Your task to perform on an android device: stop showing notifications on the lock screen Image 0: 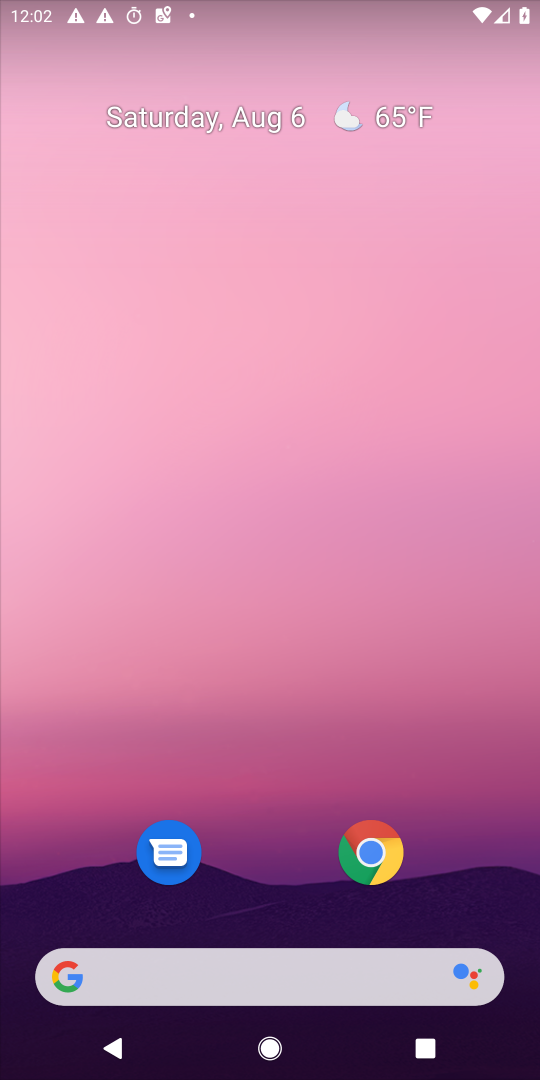
Step 0: drag from (380, 1014) to (256, 318)
Your task to perform on an android device: stop showing notifications on the lock screen Image 1: 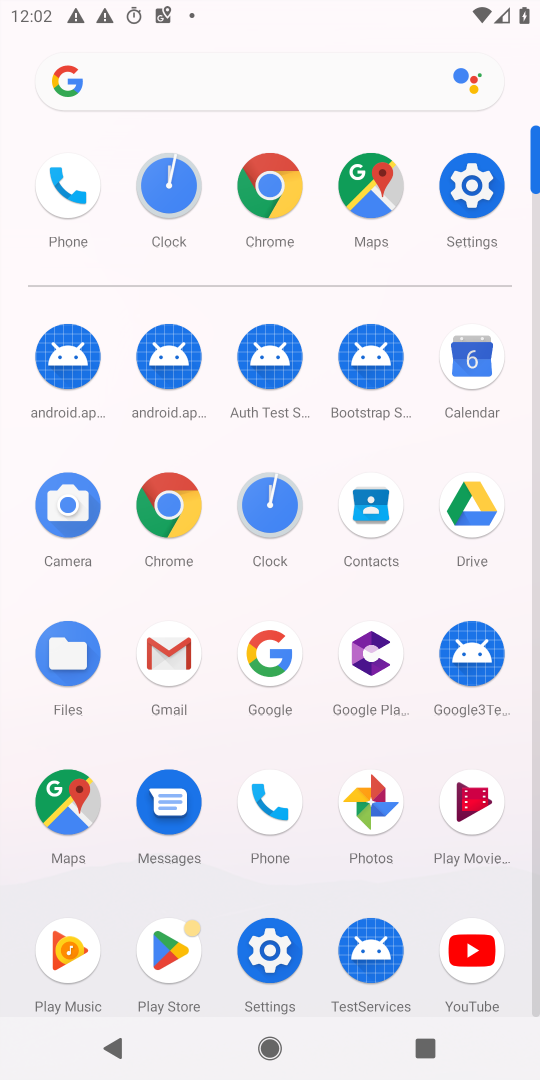
Step 1: click (473, 177)
Your task to perform on an android device: stop showing notifications on the lock screen Image 2: 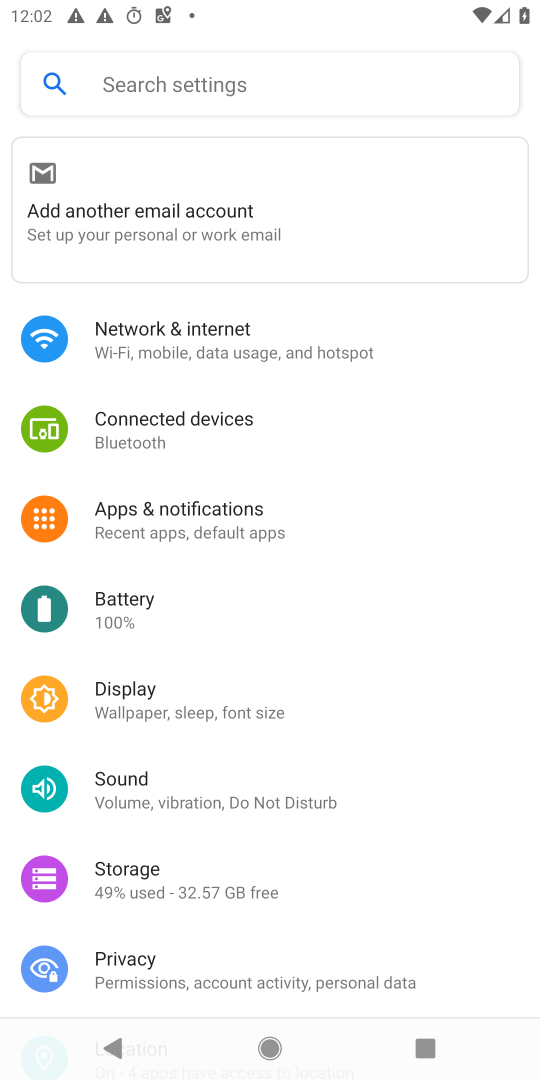
Step 2: click (175, 100)
Your task to perform on an android device: stop showing notifications on the lock screen Image 3: 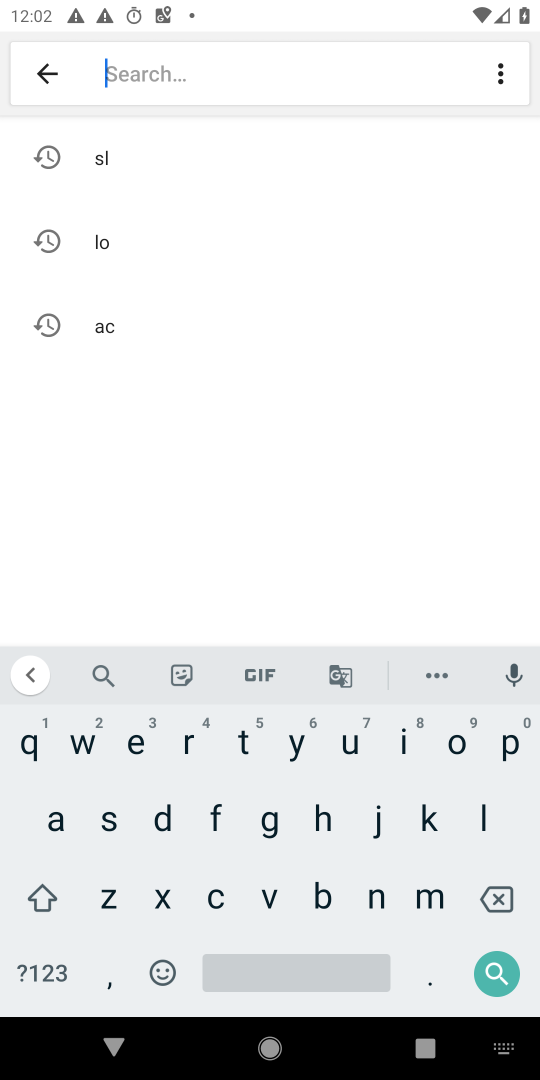
Step 3: click (366, 903)
Your task to perform on an android device: stop showing notifications on the lock screen Image 4: 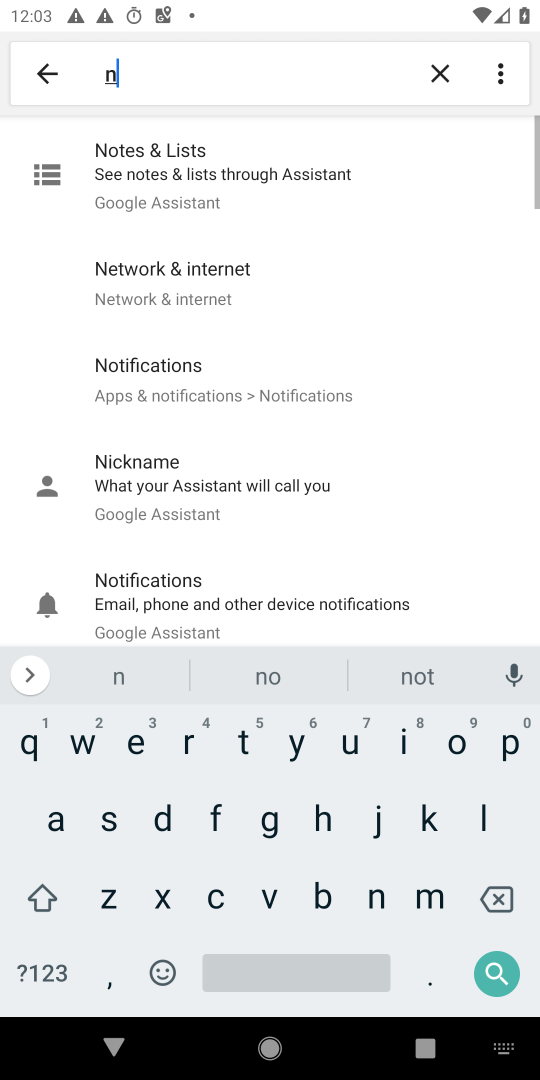
Step 4: click (447, 746)
Your task to perform on an android device: stop showing notifications on the lock screen Image 5: 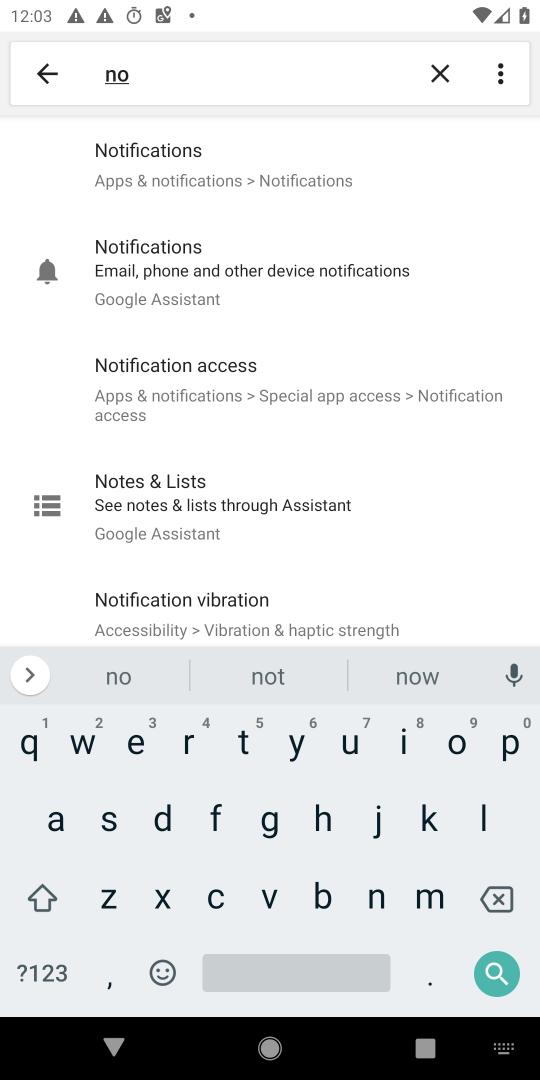
Step 5: click (165, 145)
Your task to perform on an android device: stop showing notifications on the lock screen Image 6: 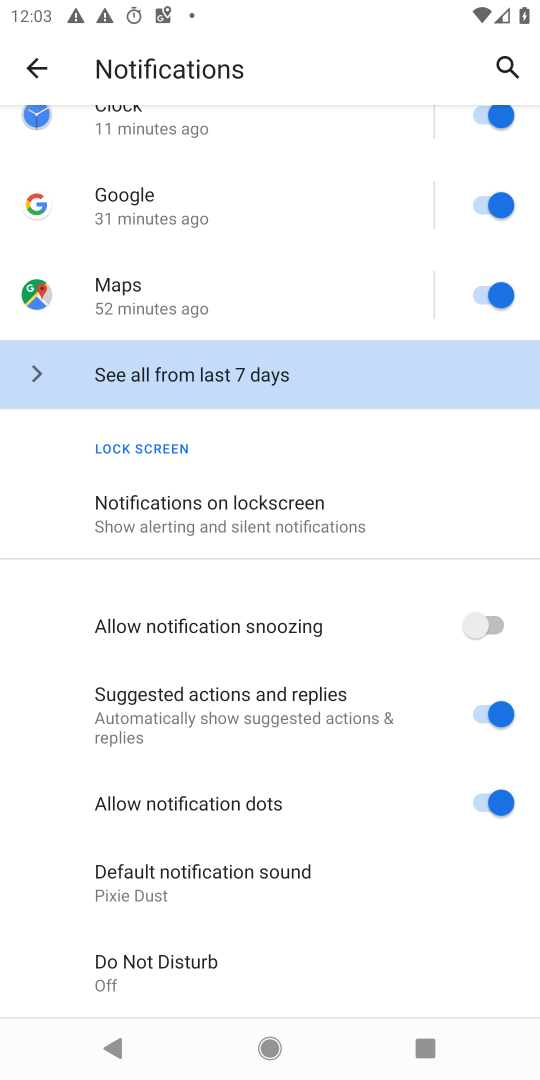
Step 6: click (203, 519)
Your task to perform on an android device: stop showing notifications on the lock screen Image 7: 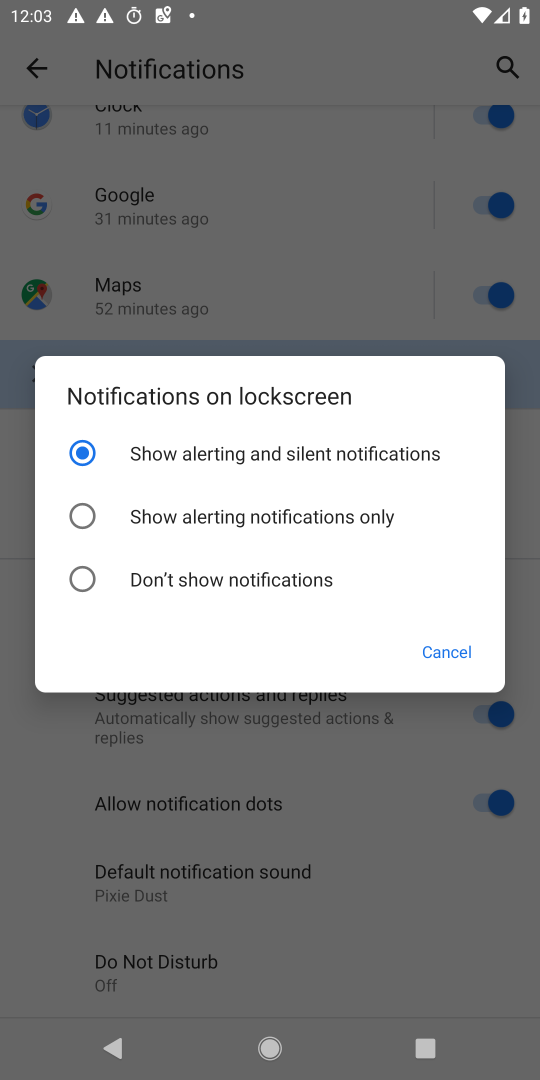
Step 7: click (167, 585)
Your task to perform on an android device: stop showing notifications on the lock screen Image 8: 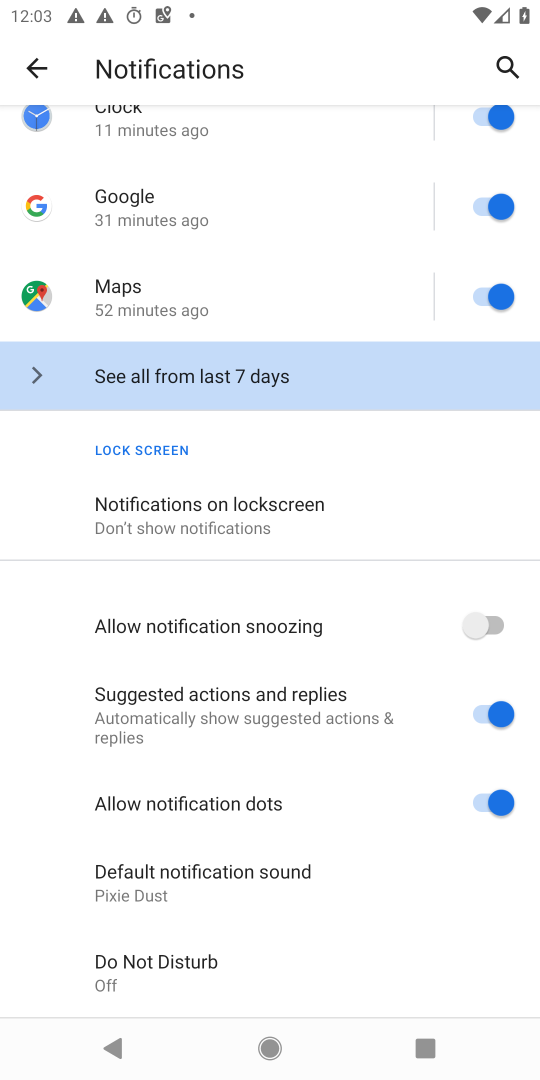
Step 8: click (183, 521)
Your task to perform on an android device: stop showing notifications on the lock screen Image 9: 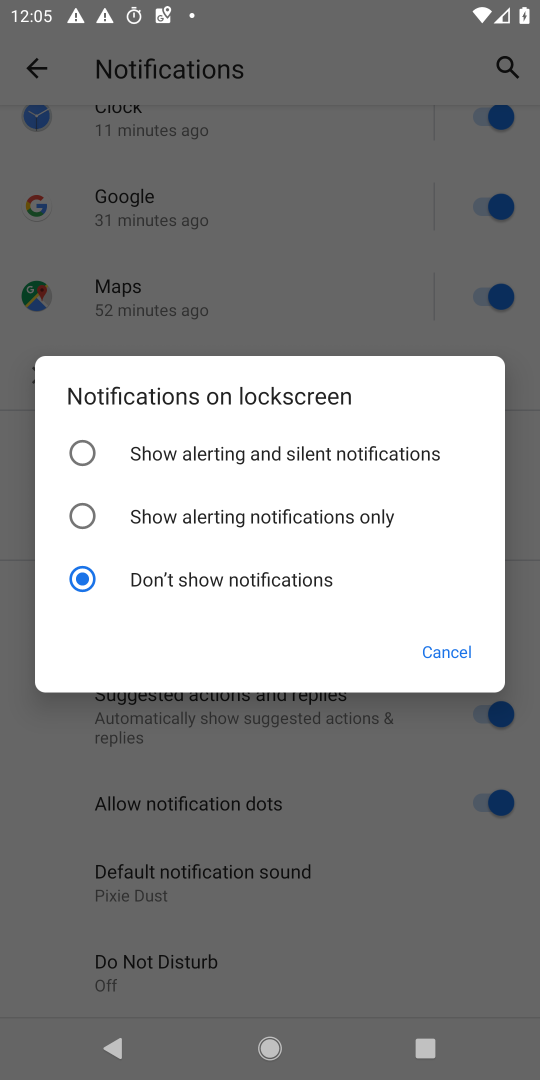
Step 9: task complete